Your task to perform on an android device: Open internet settings Image 0: 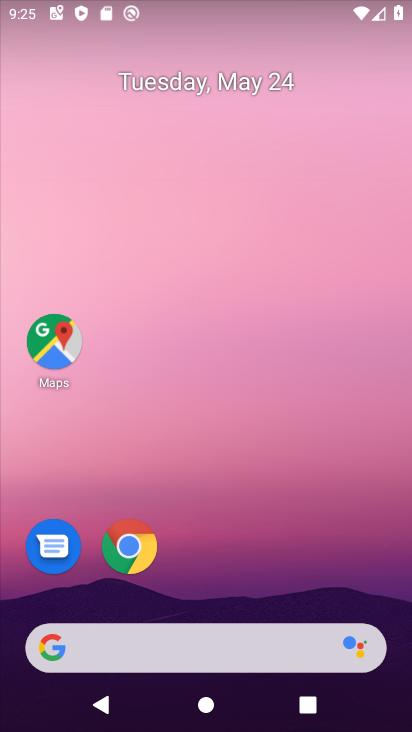
Step 0: drag from (212, 561) to (236, 260)
Your task to perform on an android device: Open internet settings Image 1: 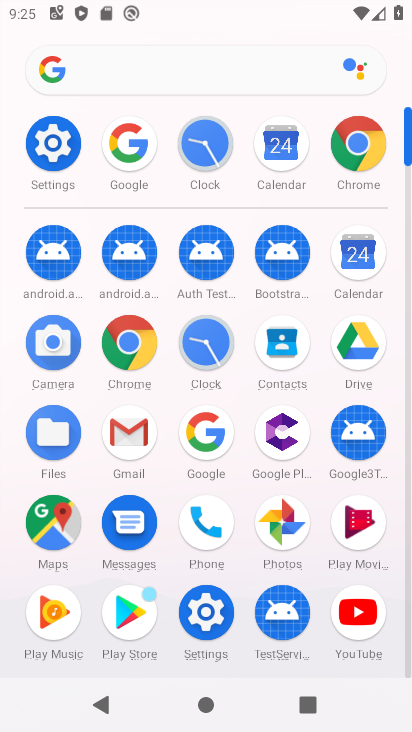
Step 1: click (58, 144)
Your task to perform on an android device: Open internet settings Image 2: 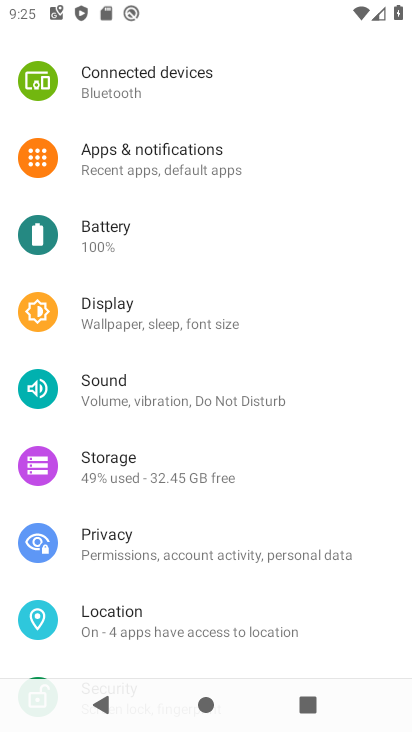
Step 2: drag from (201, 106) to (177, 540)
Your task to perform on an android device: Open internet settings Image 3: 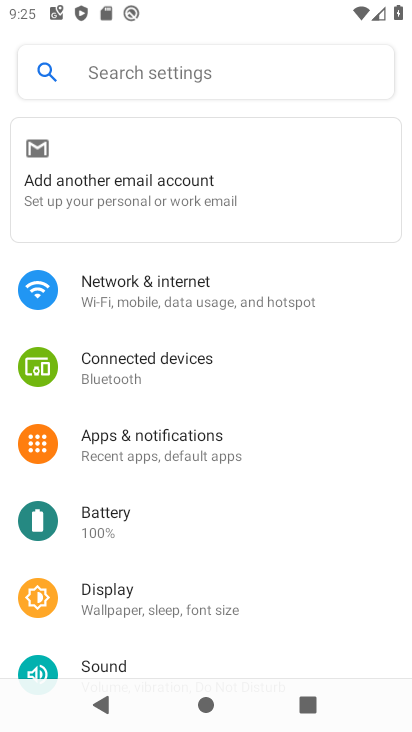
Step 3: click (122, 291)
Your task to perform on an android device: Open internet settings Image 4: 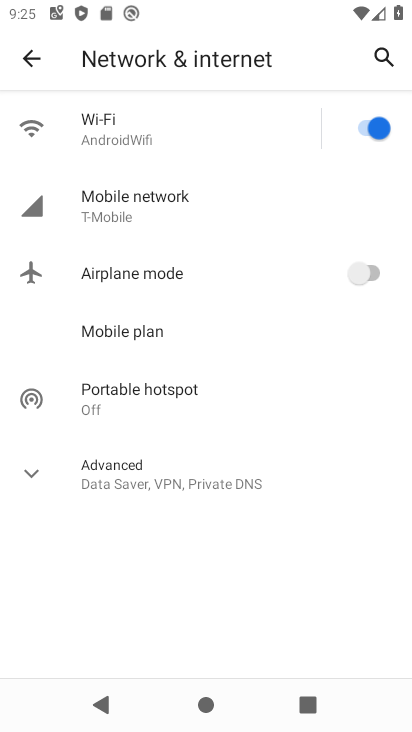
Step 4: click (110, 481)
Your task to perform on an android device: Open internet settings Image 5: 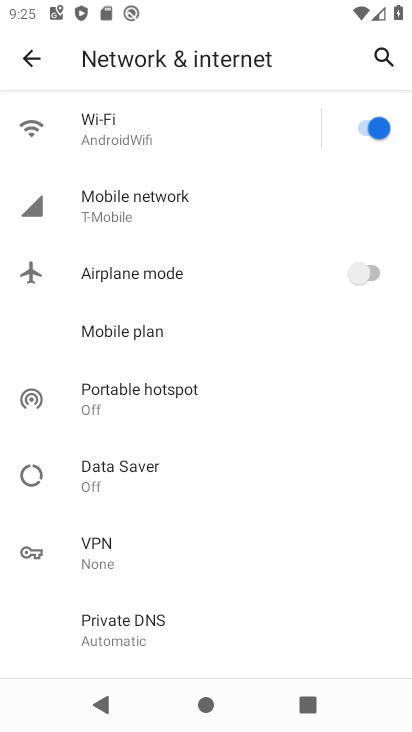
Step 5: task complete